Your task to perform on an android device: change keyboard looks Image 0: 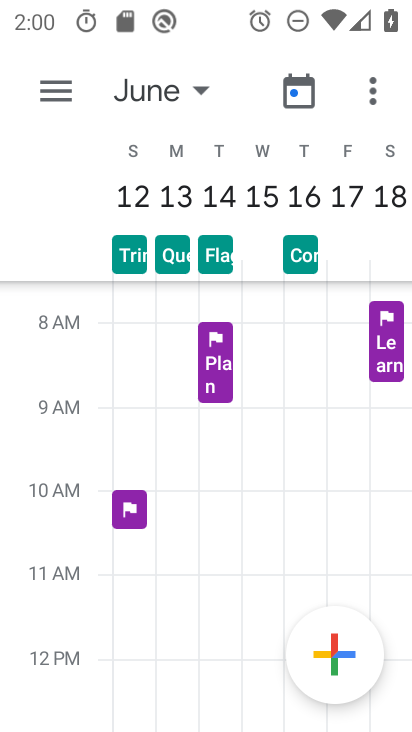
Step 0: press home button
Your task to perform on an android device: change keyboard looks Image 1: 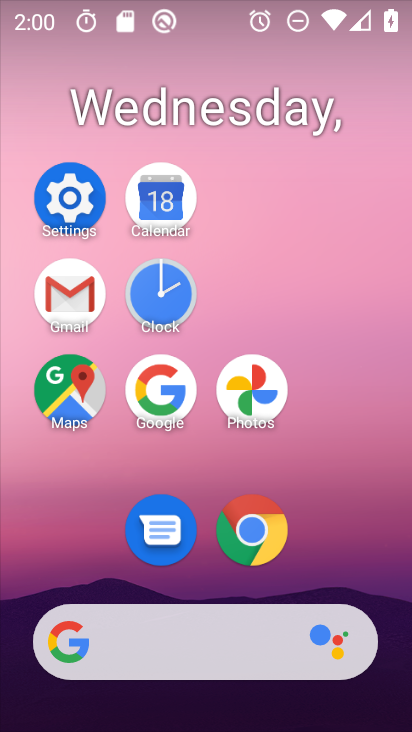
Step 1: click (102, 189)
Your task to perform on an android device: change keyboard looks Image 2: 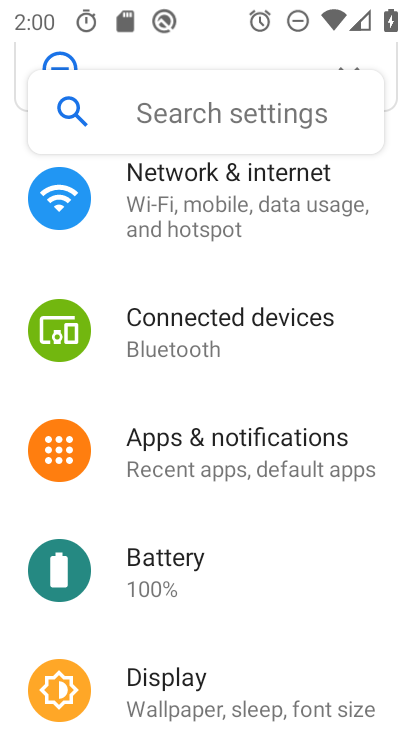
Step 2: drag from (279, 596) to (309, 151)
Your task to perform on an android device: change keyboard looks Image 3: 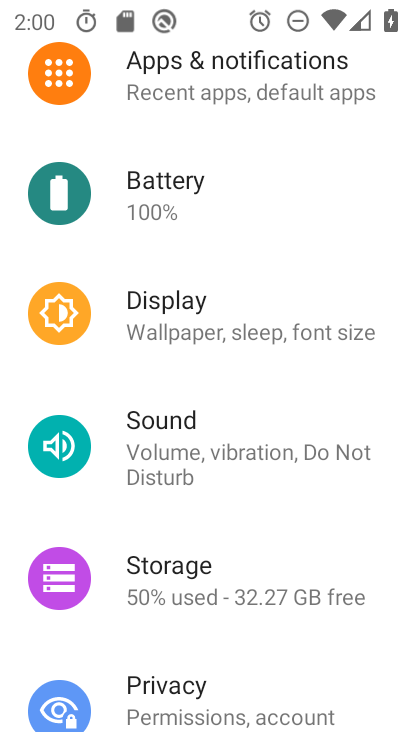
Step 3: drag from (278, 644) to (286, 237)
Your task to perform on an android device: change keyboard looks Image 4: 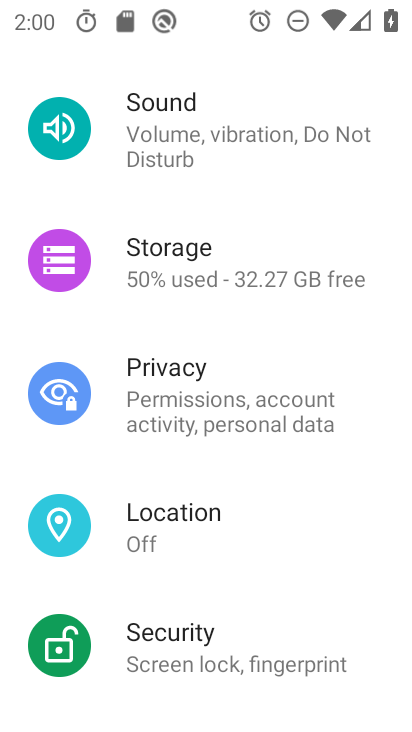
Step 4: drag from (242, 618) to (288, 289)
Your task to perform on an android device: change keyboard looks Image 5: 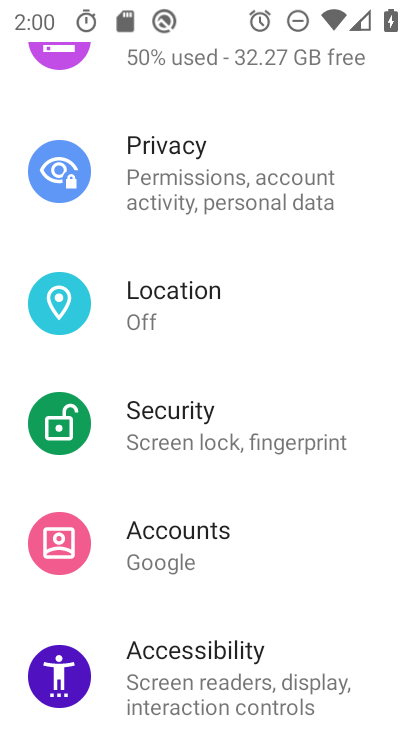
Step 5: drag from (238, 609) to (290, 287)
Your task to perform on an android device: change keyboard looks Image 6: 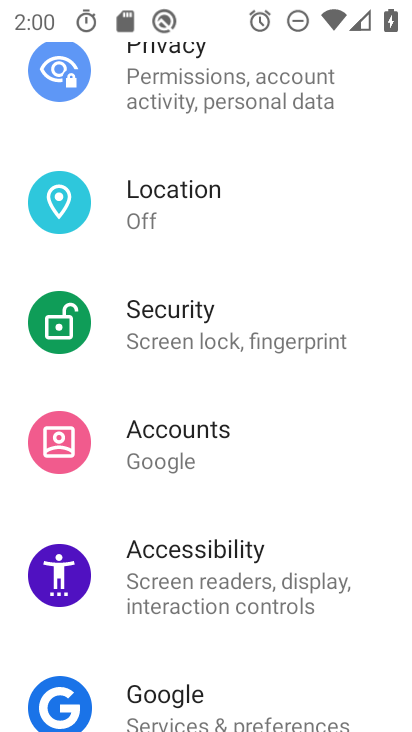
Step 6: drag from (243, 645) to (285, 260)
Your task to perform on an android device: change keyboard looks Image 7: 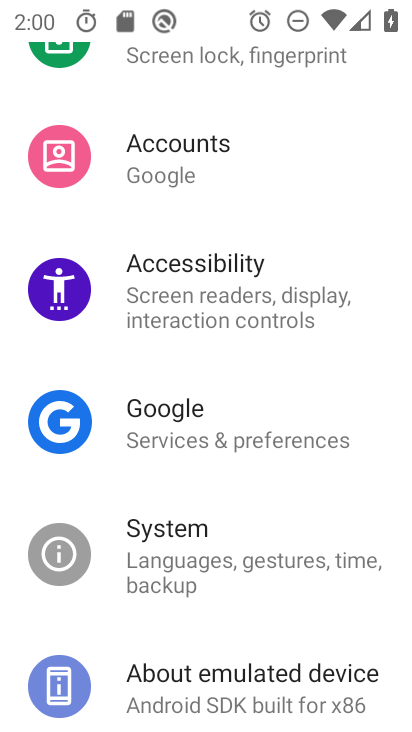
Step 7: click (262, 577)
Your task to perform on an android device: change keyboard looks Image 8: 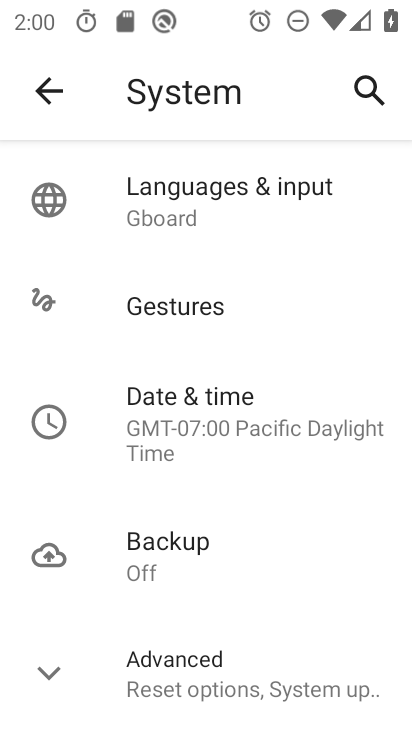
Step 8: drag from (317, 525) to (313, 264)
Your task to perform on an android device: change keyboard looks Image 9: 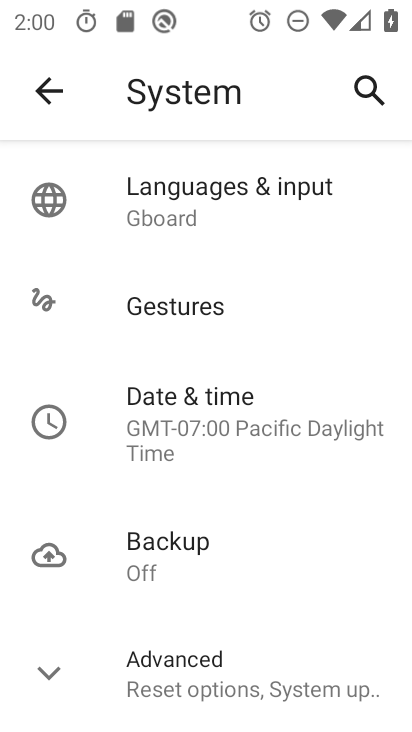
Step 9: click (249, 193)
Your task to perform on an android device: change keyboard looks Image 10: 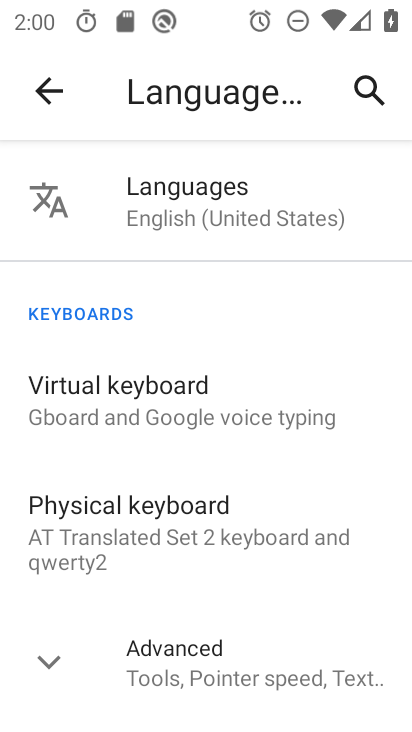
Step 10: click (194, 382)
Your task to perform on an android device: change keyboard looks Image 11: 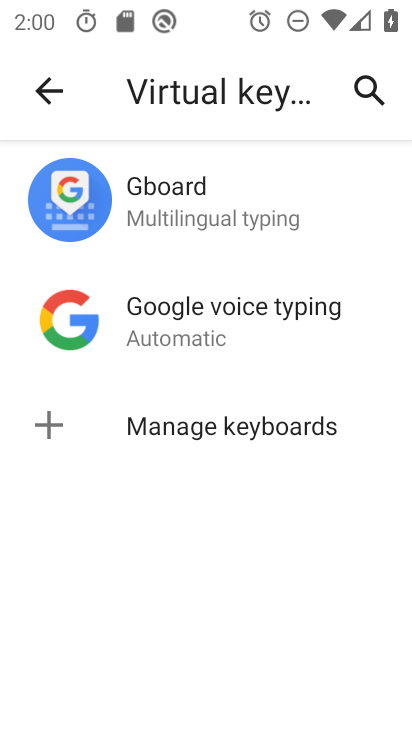
Step 11: click (174, 188)
Your task to perform on an android device: change keyboard looks Image 12: 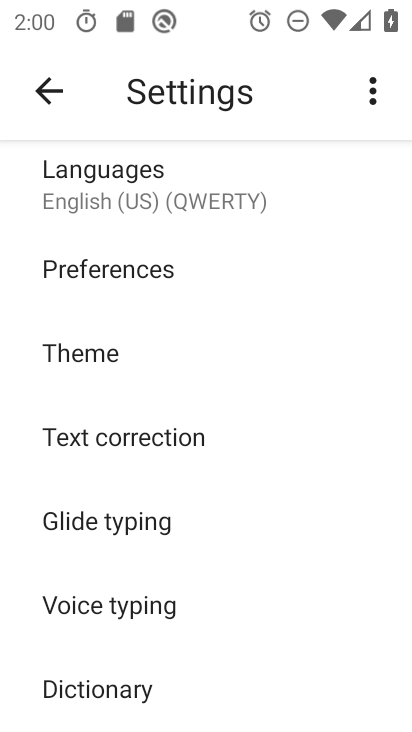
Step 12: drag from (189, 349) to (109, 349)
Your task to perform on an android device: change keyboard looks Image 13: 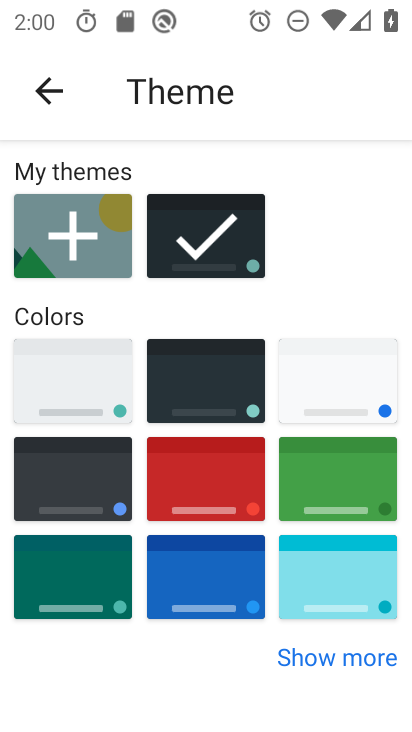
Step 13: click (252, 410)
Your task to perform on an android device: change keyboard looks Image 14: 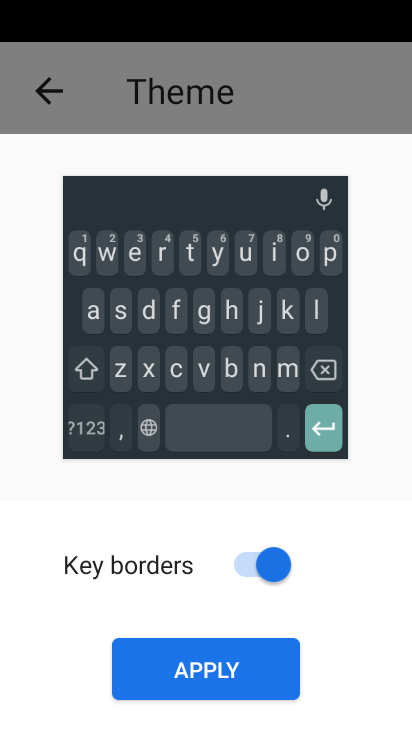
Step 14: click (247, 657)
Your task to perform on an android device: change keyboard looks Image 15: 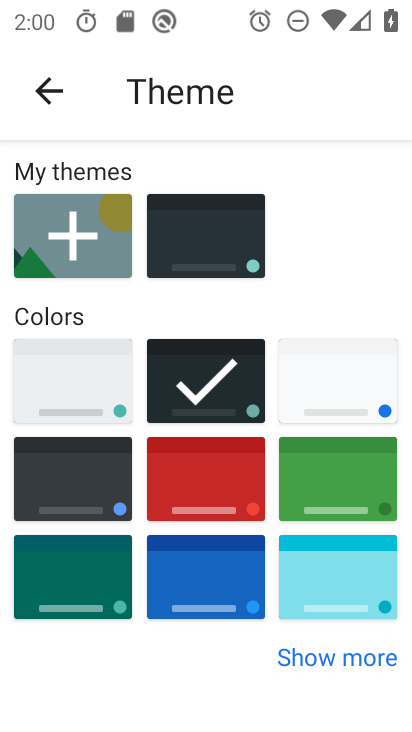
Step 15: task complete